Your task to perform on an android device: open app "Upside-Cash back on gas & food" (install if not already installed) Image 0: 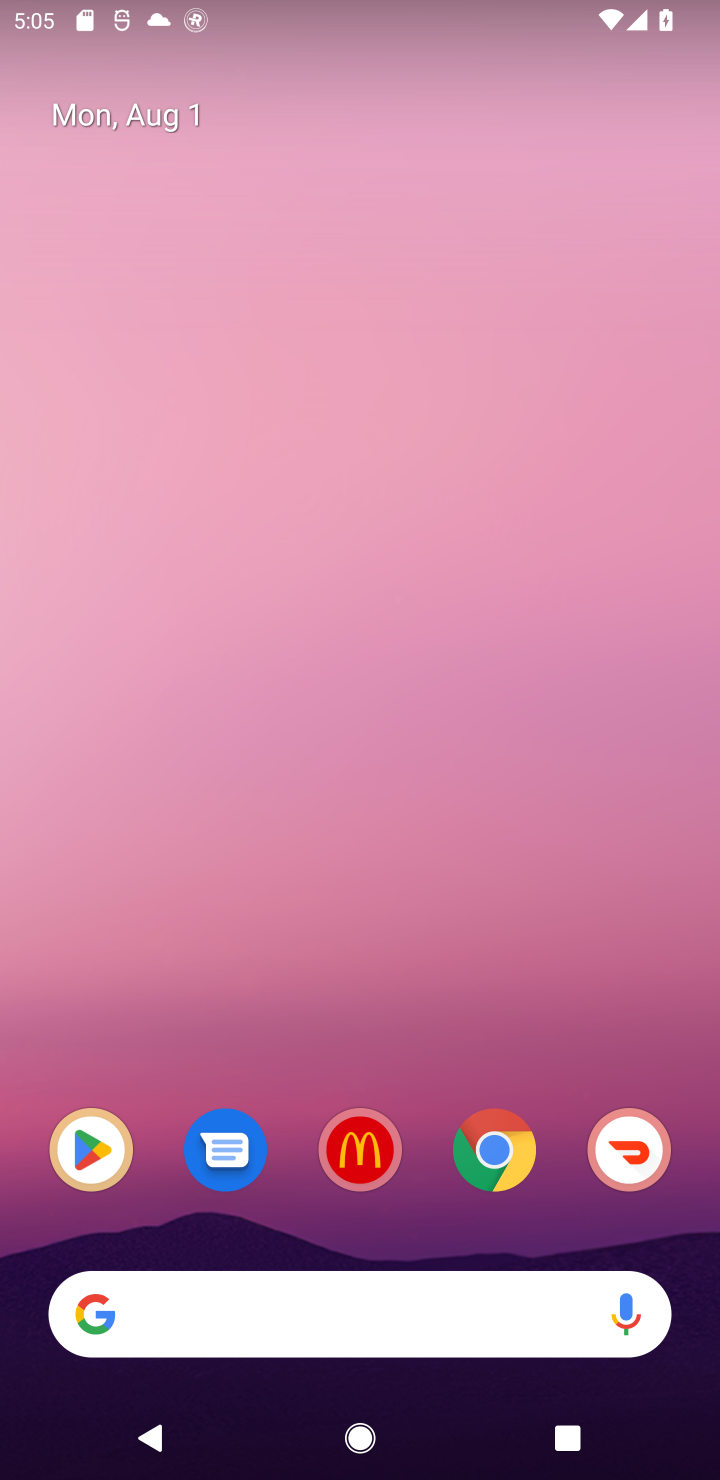
Step 0: click (103, 1180)
Your task to perform on an android device: open app "Upside-Cash back on gas & food" (install if not already installed) Image 1: 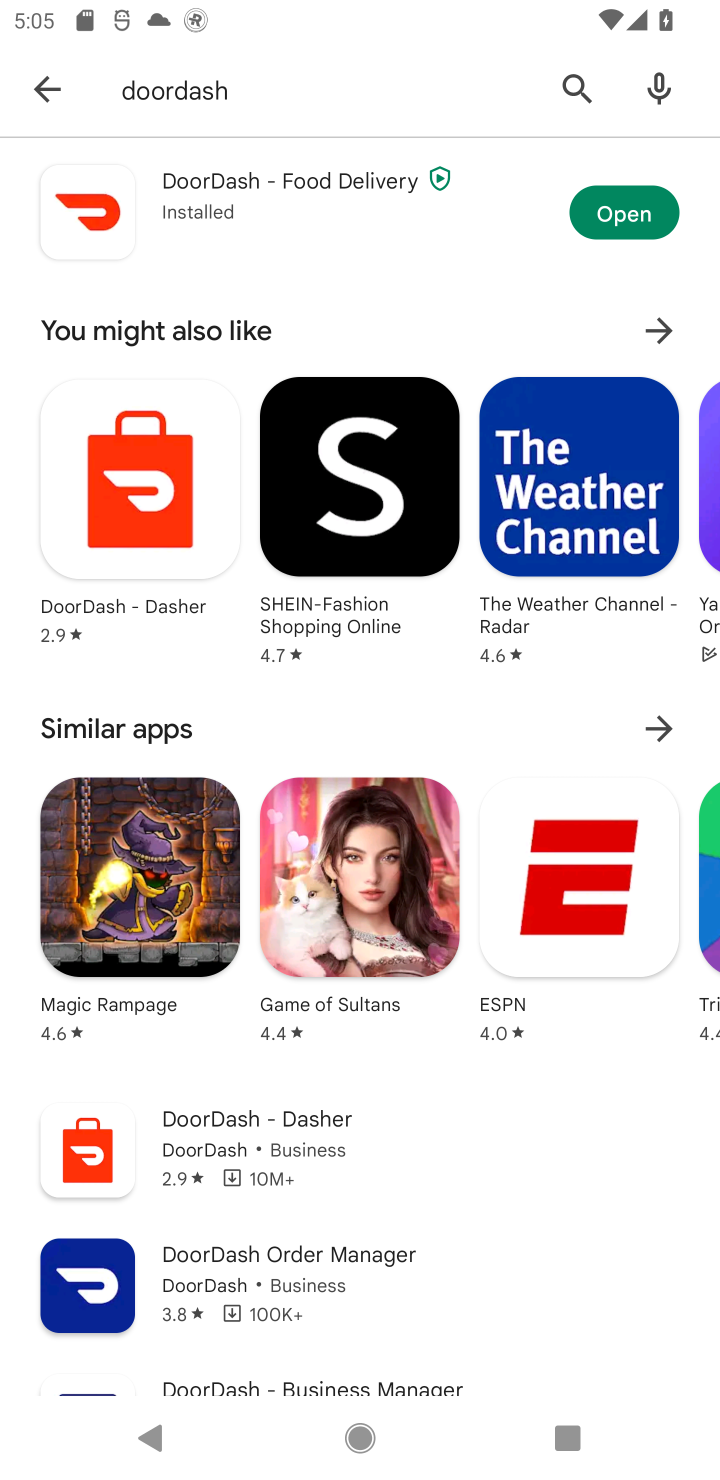
Step 1: click (545, 88)
Your task to perform on an android device: open app "Upside-Cash back on gas & food" (install if not already installed) Image 2: 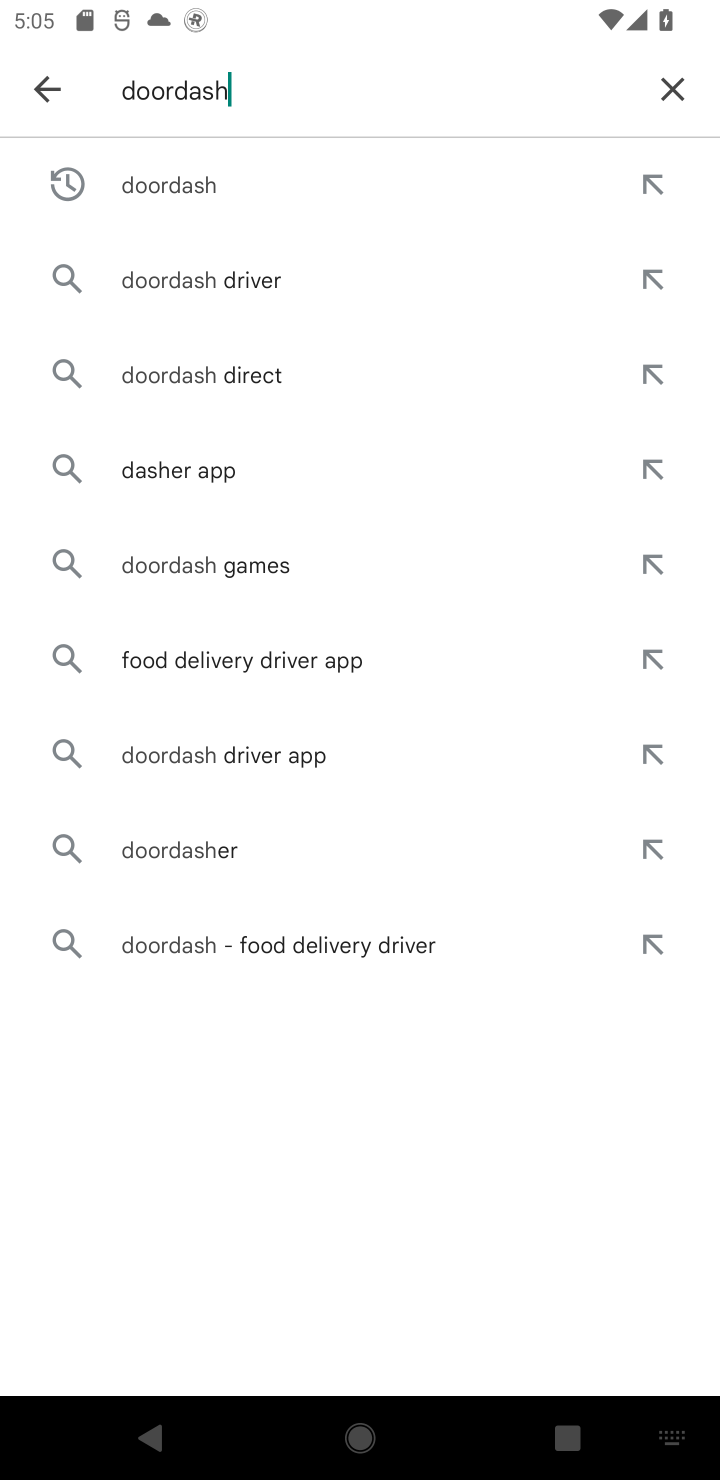
Step 2: click (669, 97)
Your task to perform on an android device: open app "Upside-Cash back on gas & food" (install if not already installed) Image 3: 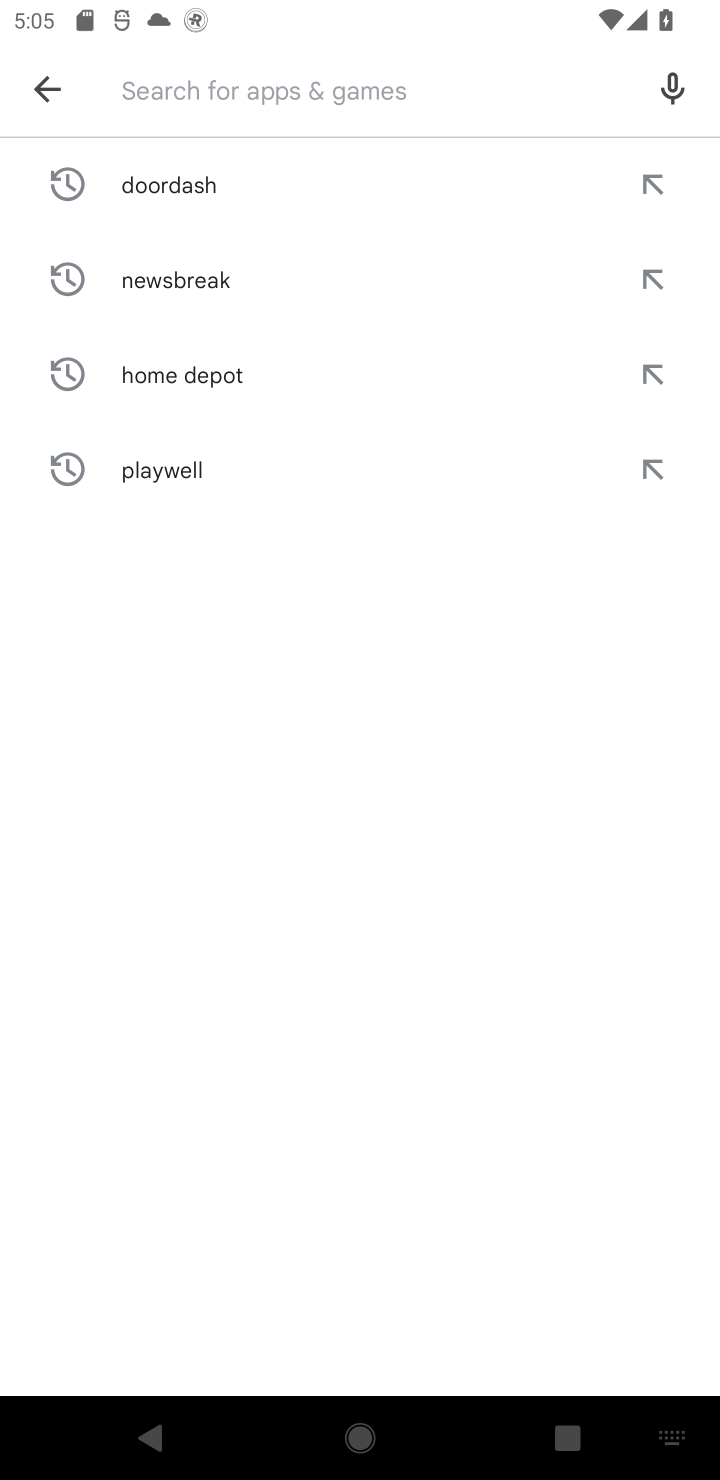
Step 3: type "upside"
Your task to perform on an android device: open app "Upside-Cash back on gas & food" (install if not already installed) Image 4: 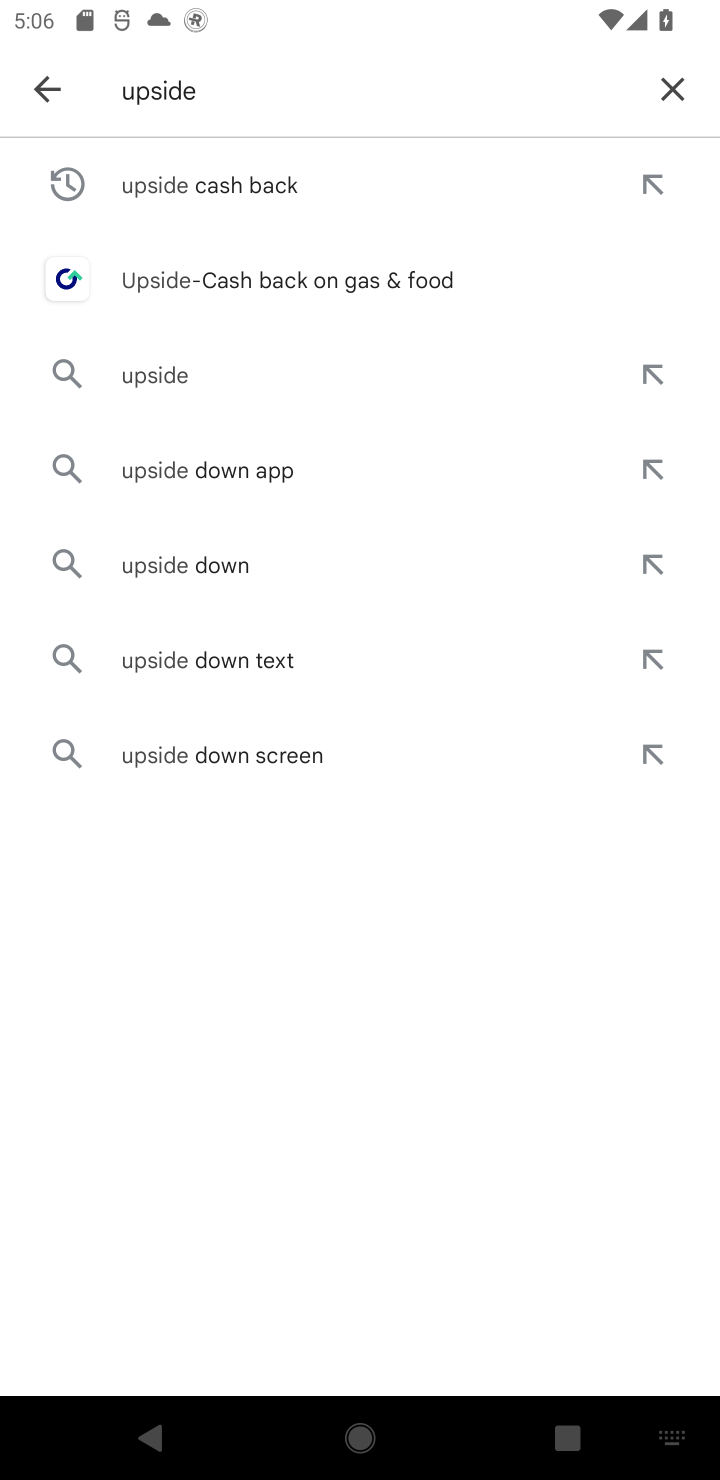
Step 4: click (247, 297)
Your task to perform on an android device: open app "Upside-Cash back on gas & food" (install if not already installed) Image 5: 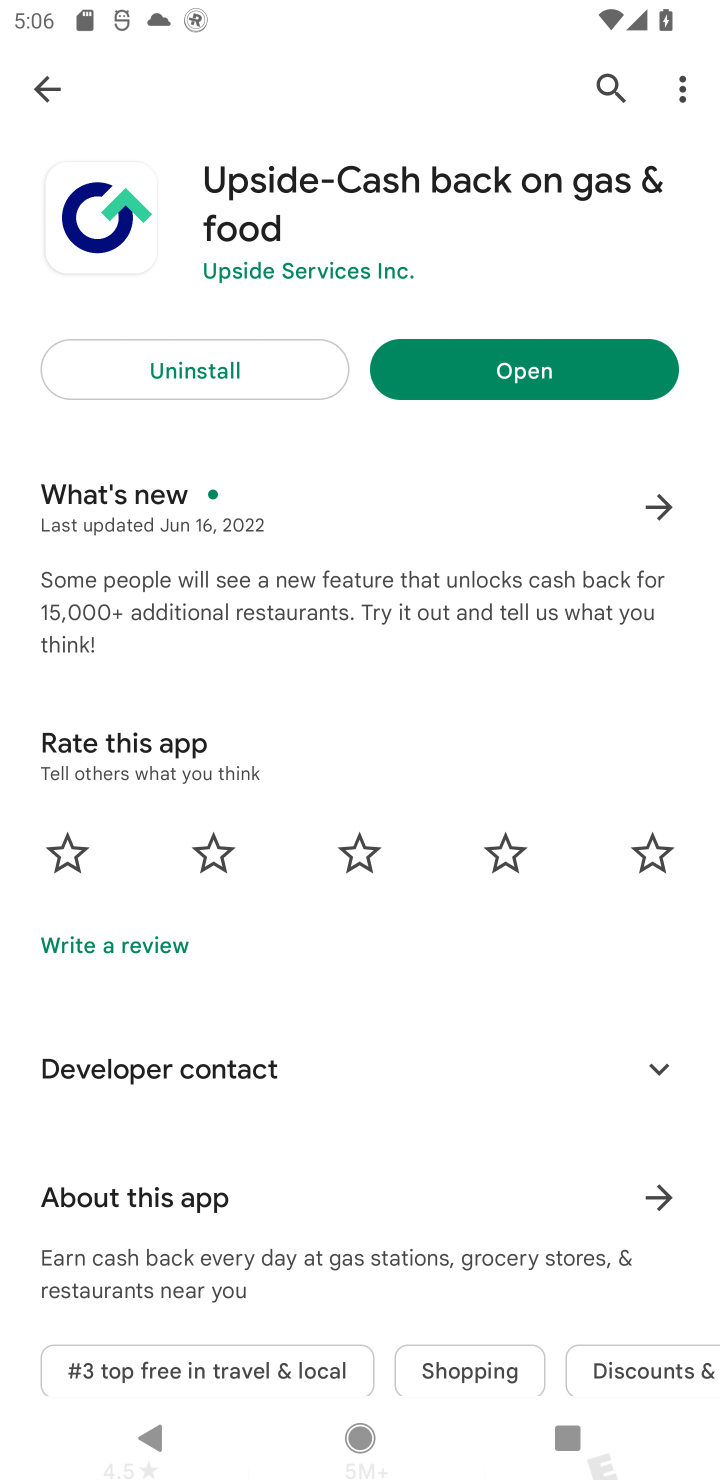
Step 5: click (443, 365)
Your task to perform on an android device: open app "Upside-Cash back on gas & food" (install if not already installed) Image 6: 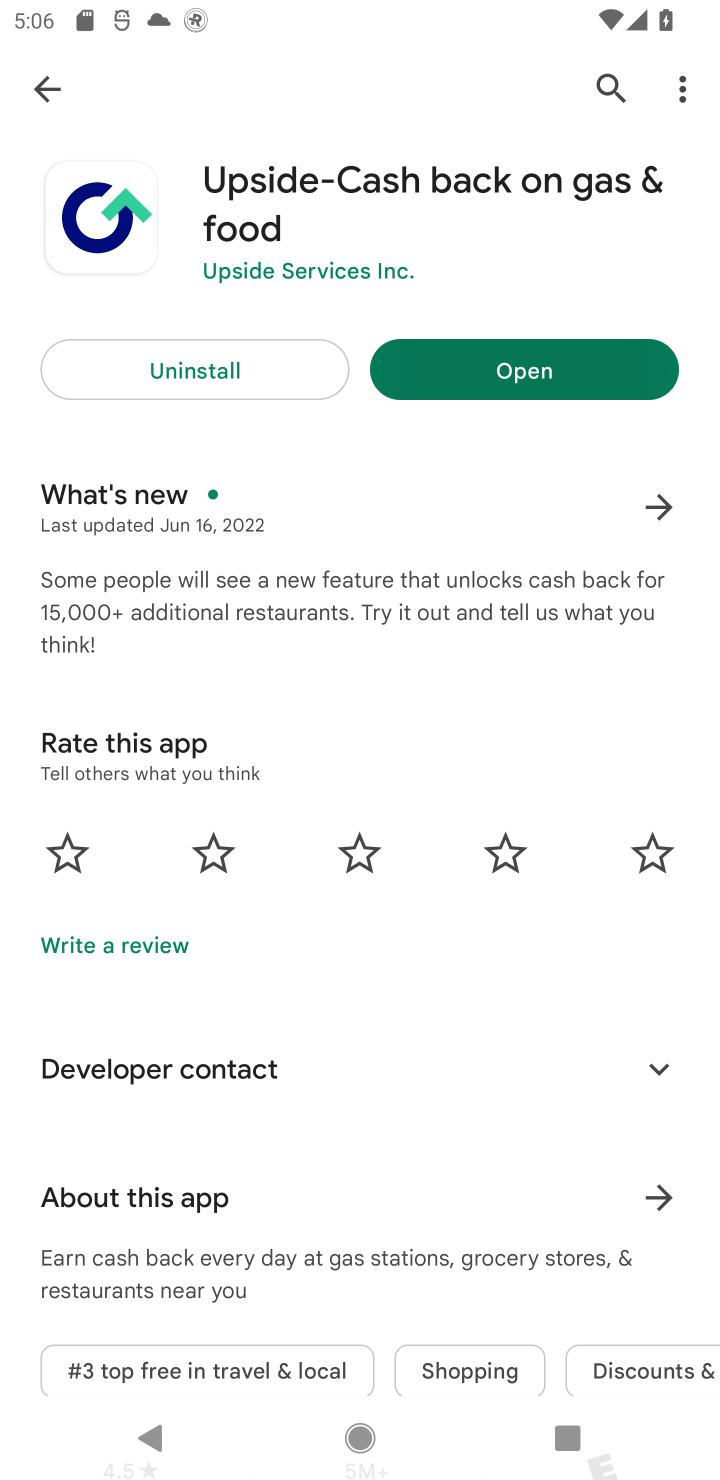
Step 6: task complete